Your task to perform on an android device: When is my next meeting? Image 0: 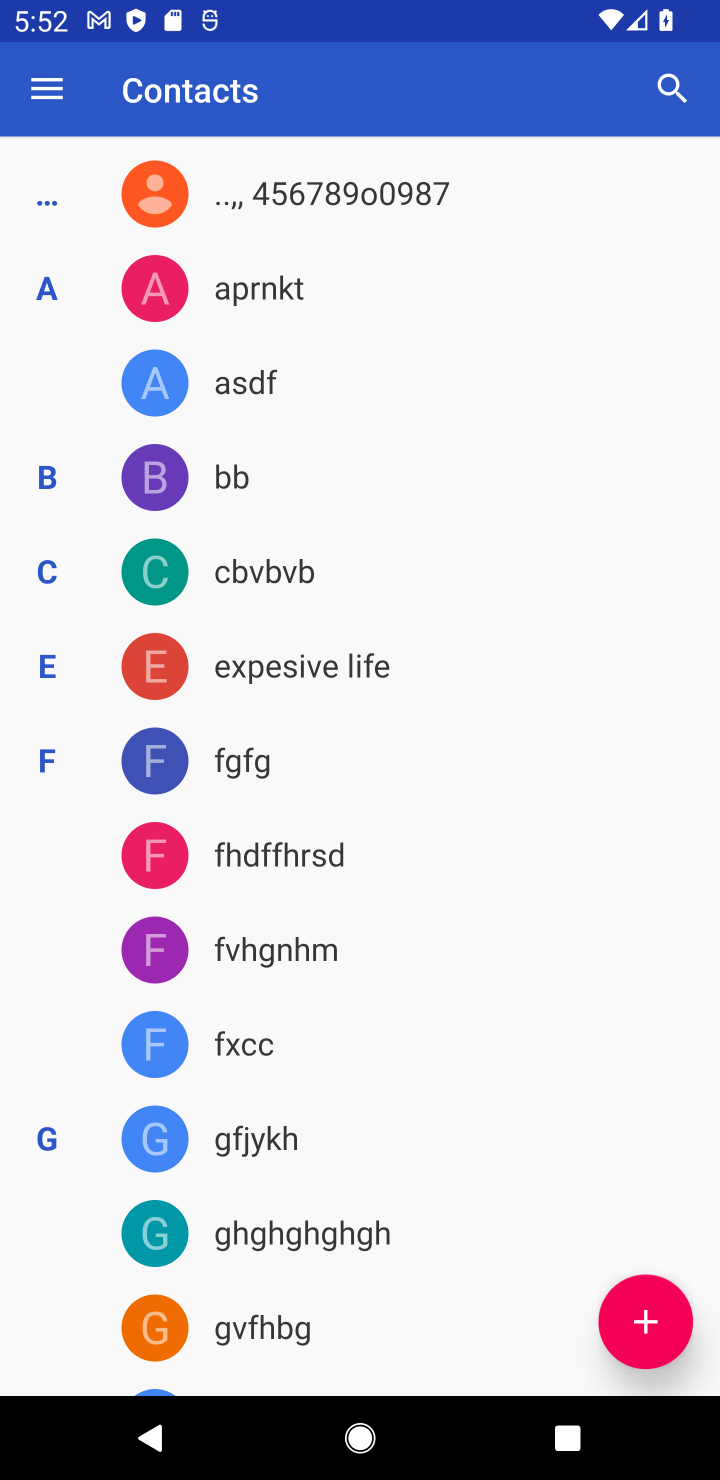
Step 0: press home button
Your task to perform on an android device: When is my next meeting? Image 1: 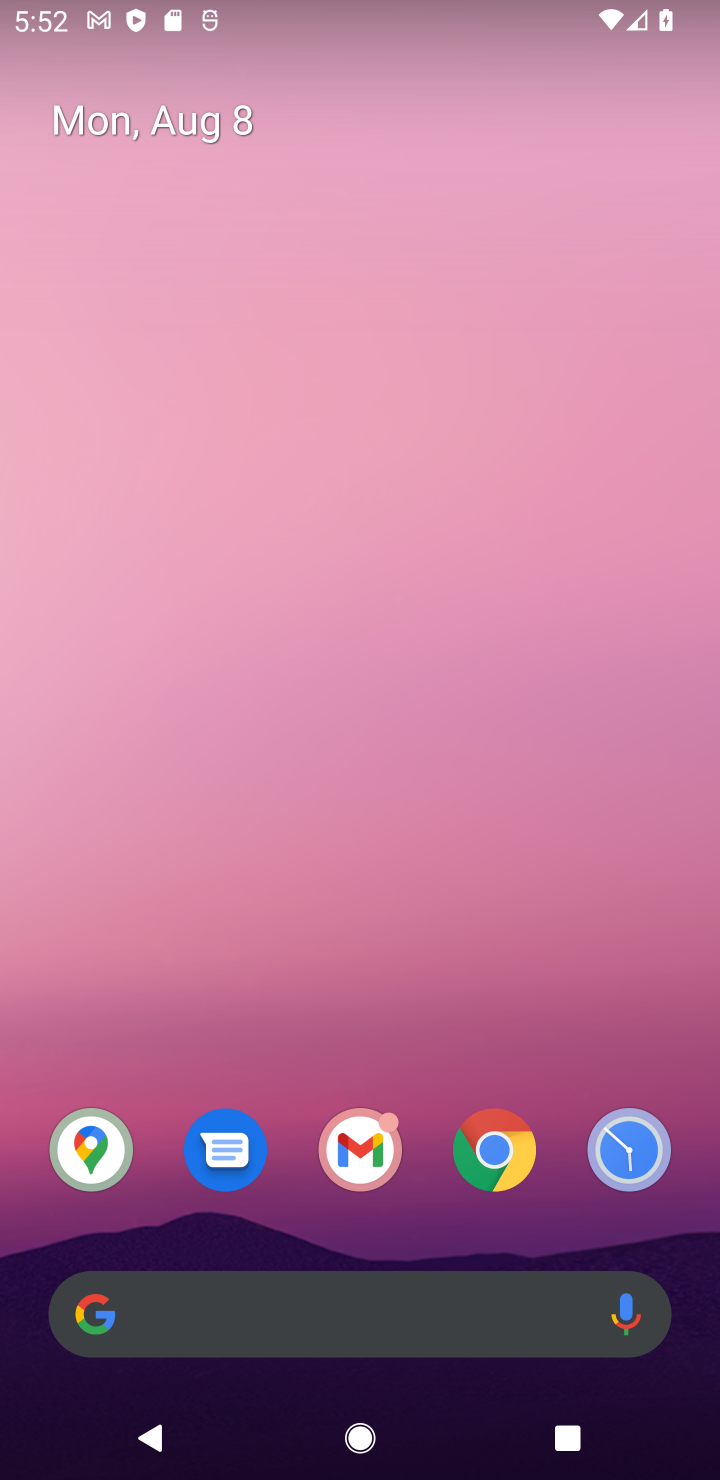
Step 1: drag from (427, 1252) to (357, 229)
Your task to perform on an android device: When is my next meeting? Image 2: 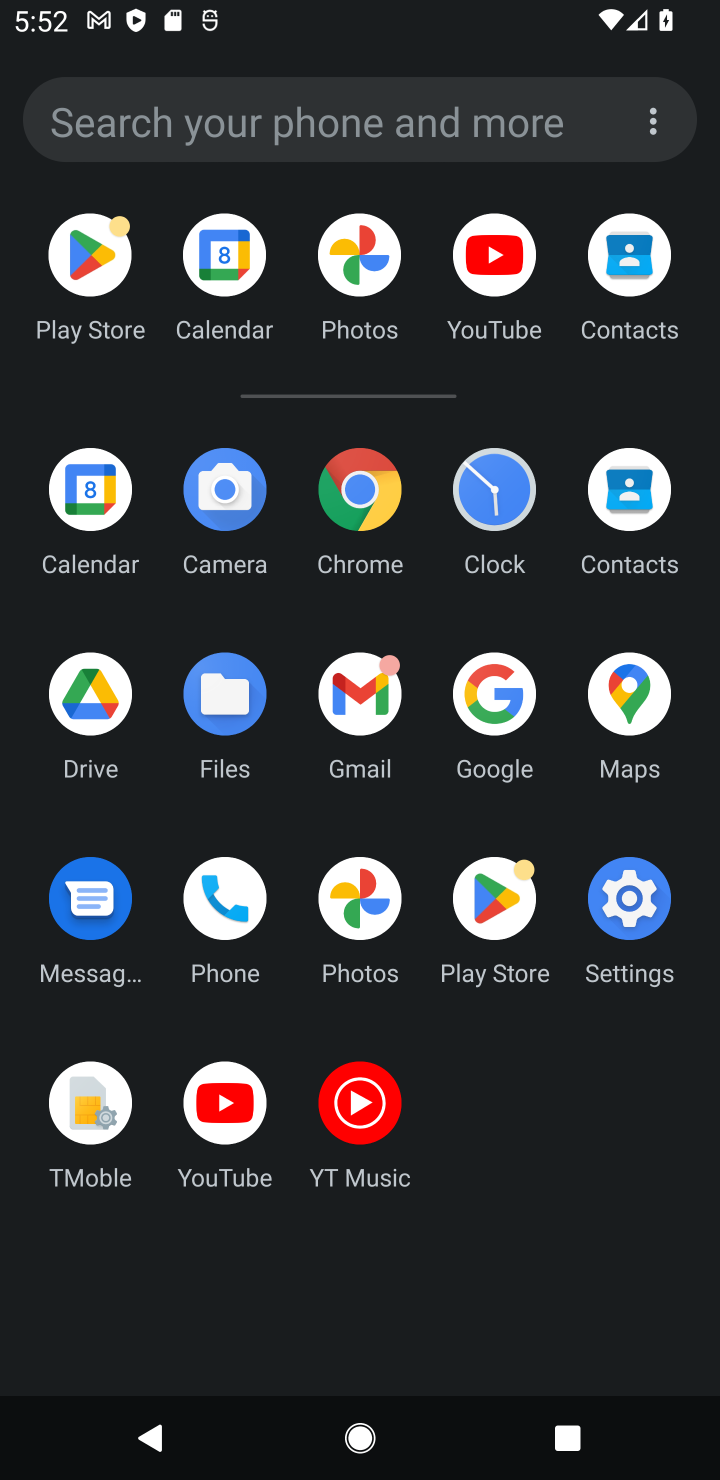
Step 2: click (54, 471)
Your task to perform on an android device: When is my next meeting? Image 3: 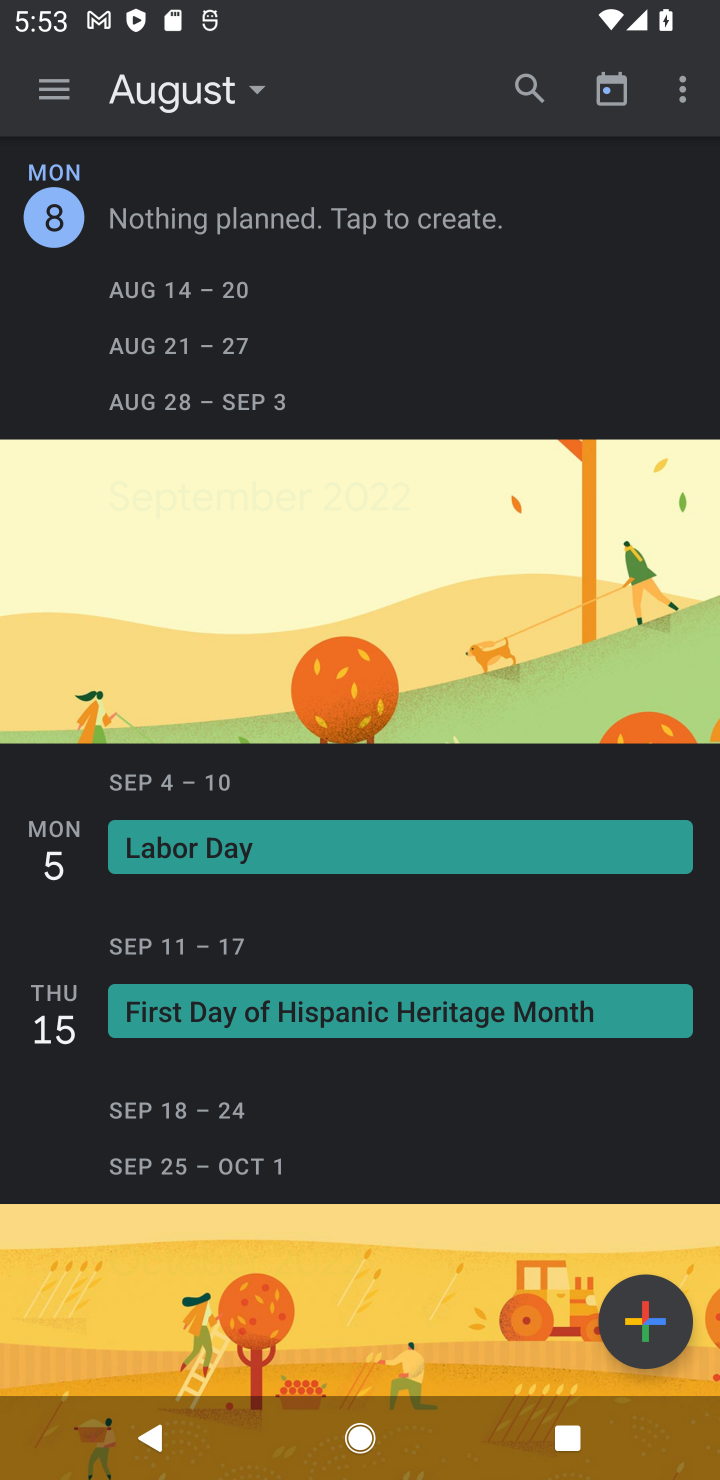
Step 3: task complete